Your task to perform on an android device: open app "NewsBreak: Local News & Alerts" (install if not already installed) Image 0: 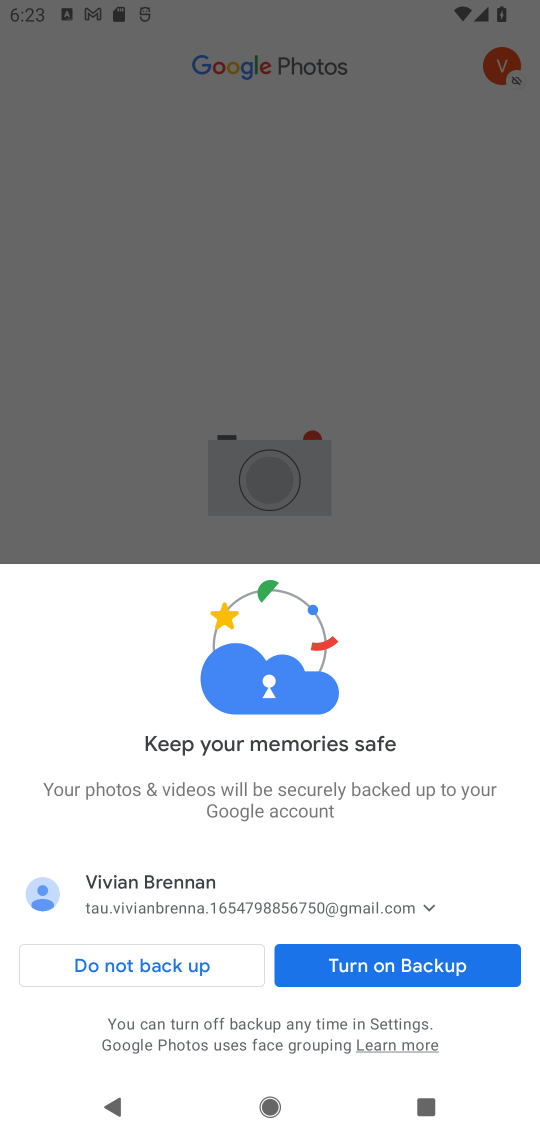
Step 0: press home button
Your task to perform on an android device: open app "NewsBreak: Local News & Alerts" (install if not already installed) Image 1: 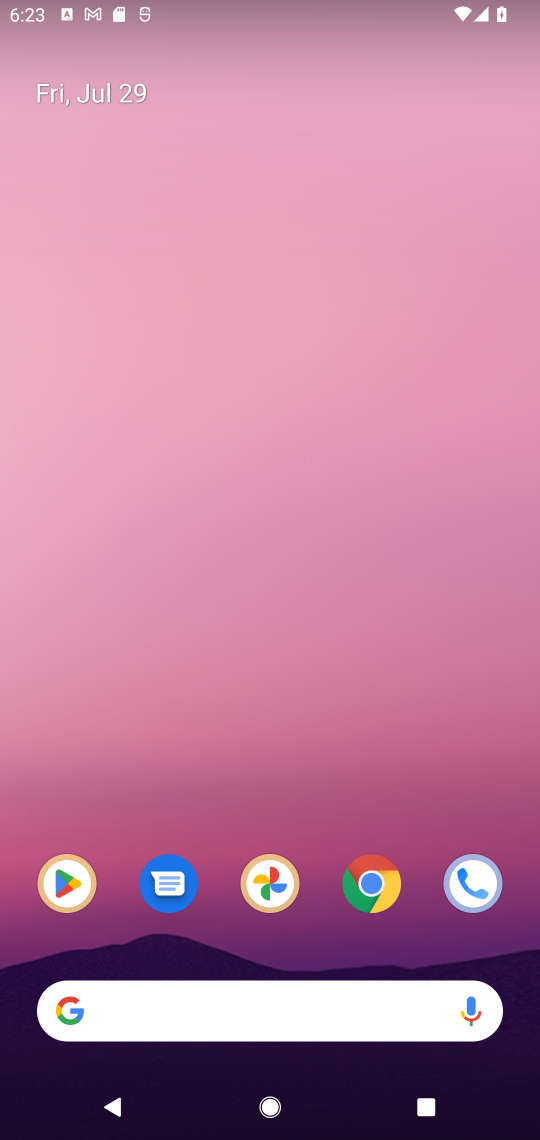
Step 1: click (71, 873)
Your task to perform on an android device: open app "NewsBreak: Local News & Alerts" (install if not already installed) Image 2: 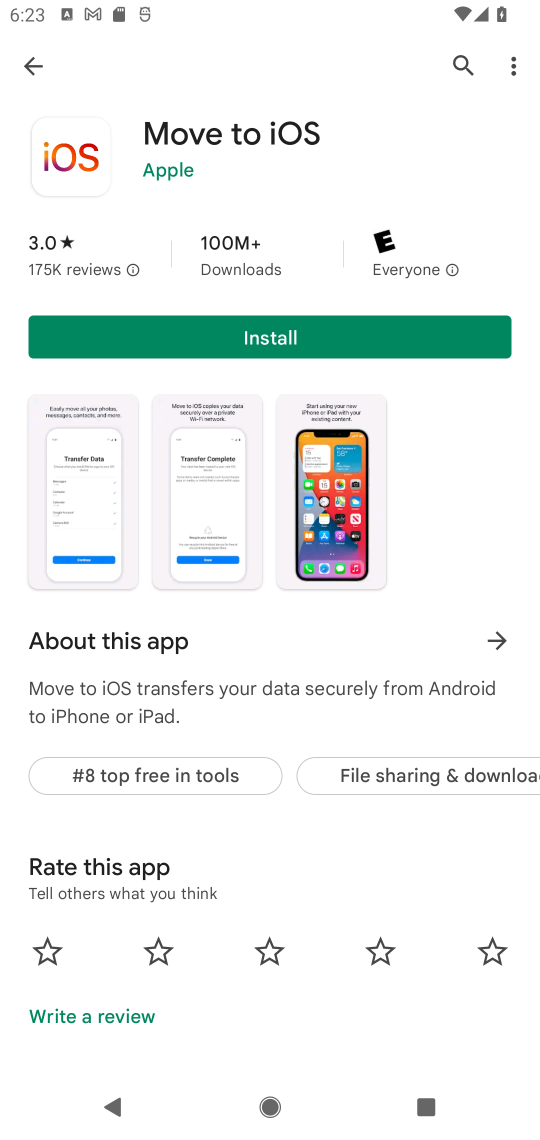
Step 2: click (443, 55)
Your task to perform on an android device: open app "NewsBreak: Local News & Alerts" (install if not already installed) Image 3: 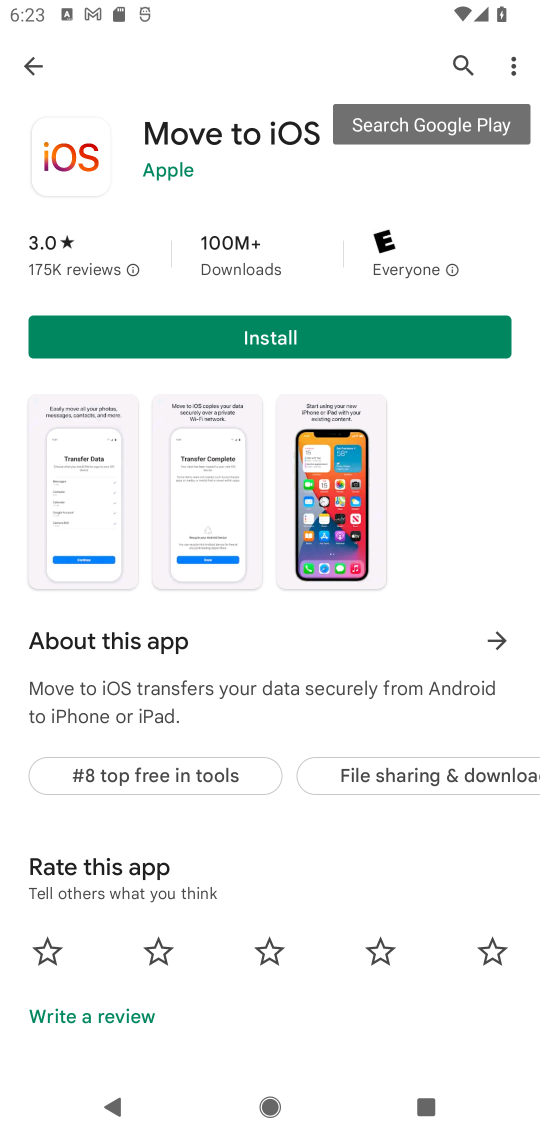
Step 3: click (473, 58)
Your task to perform on an android device: open app "NewsBreak: Local News & Alerts" (install if not already installed) Image 4: 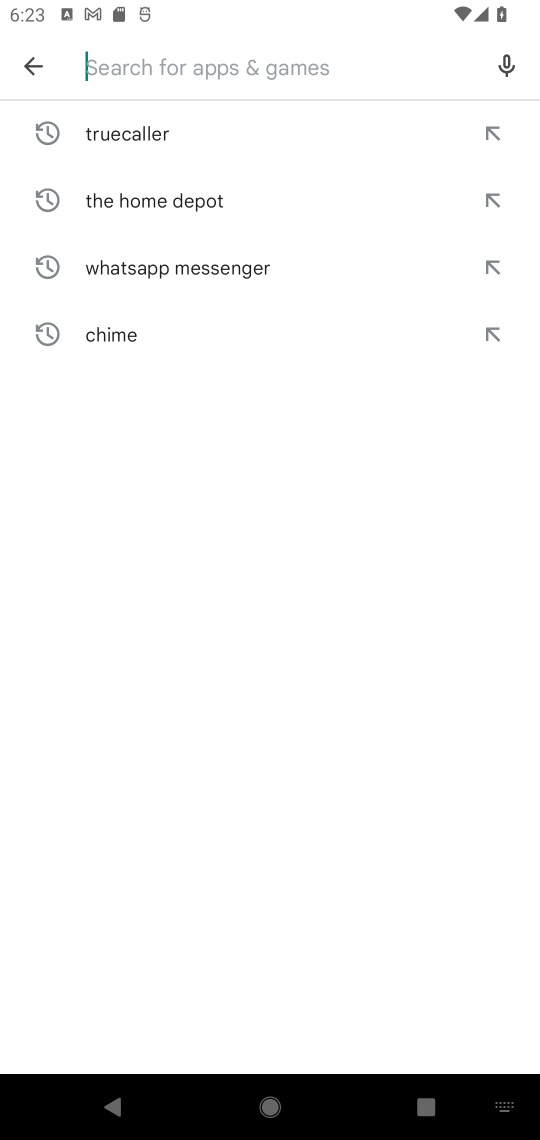
Step 4: click (195, 57)
Your task to perform on an android device: open app "NewsBreak: Local News & Alerts" (install if not already installed) Image 5: 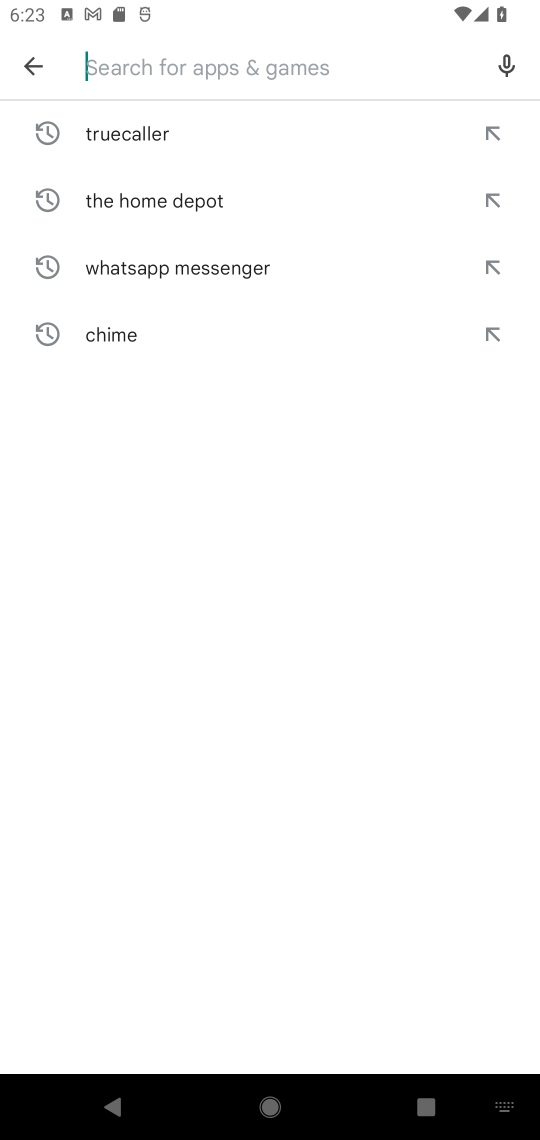
Step 5: type "news break"
Your task to perform on an android device: open app "NewsBreak: Local News & Alerts" (install if not already installed) Image 6: 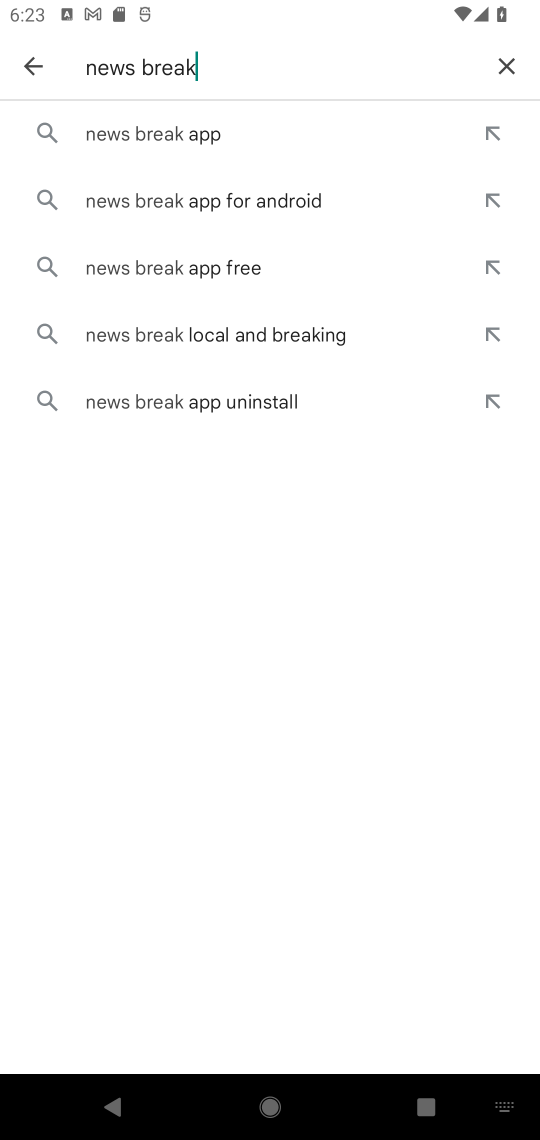
Step 6: click (212, 147)
Your task to perform on an android device: open app "NewsBreak: Local News & Alerts" (install if not already installed) Image 7: 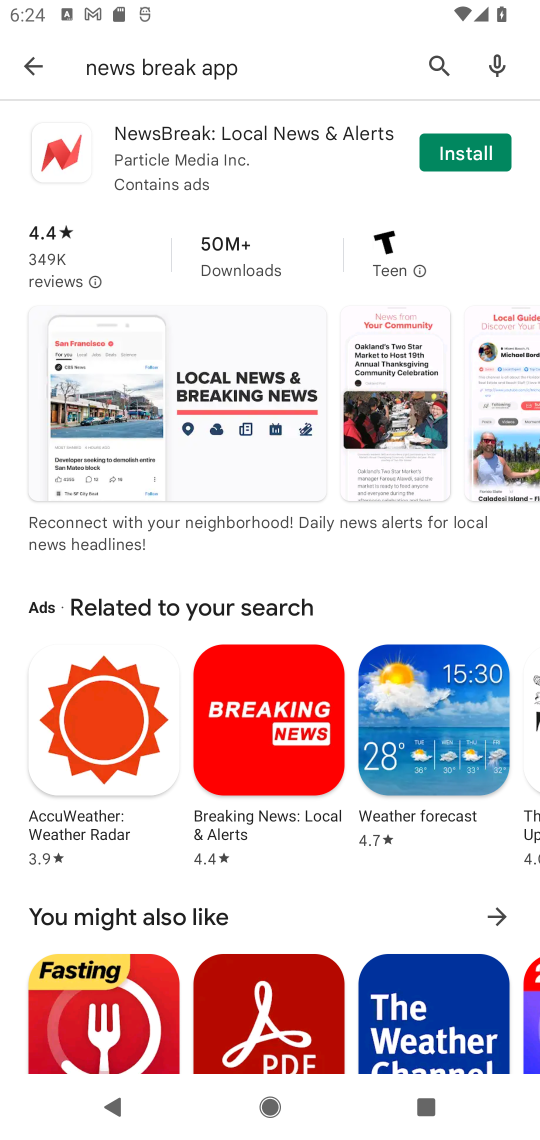
Step 7: click (465, 143)
Your task to perform on an android device: open app "NewsBreak: Local News & Alerts" (install if not already installed) Image 8: 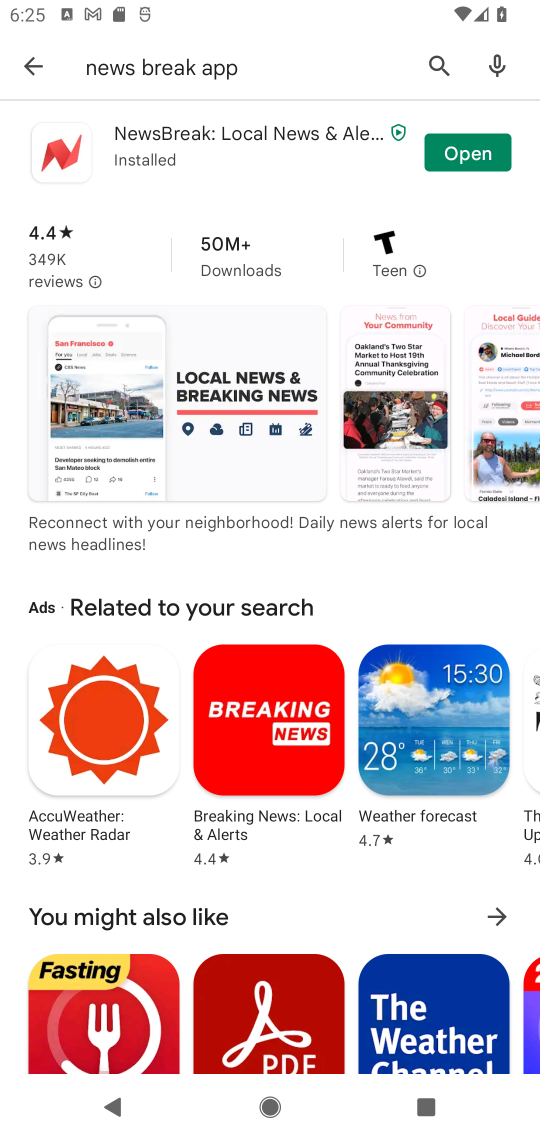
Step 8: click (477, 147)
Your task to perform on an android device: open app "NewsBreak: Local News & Alerts" (install if not already installed) Image 9: 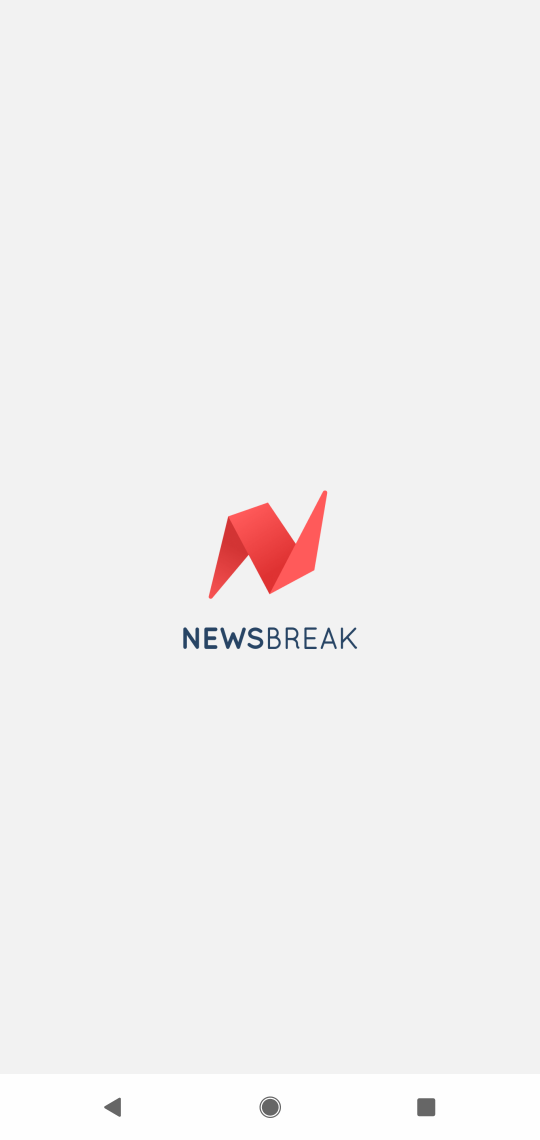
Step 9: task complete